Your task to perform on an android device: Open notification settings Image 0: 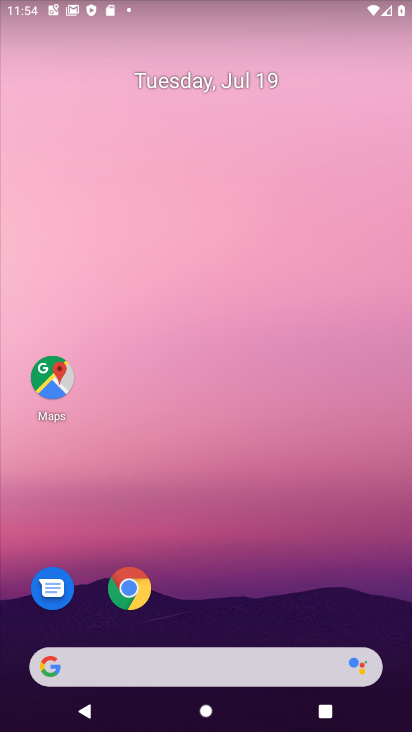
Step 0: drag from (392, 693) to (290, 97)
Your task to perform on an android device: Open notification settings Image 1: 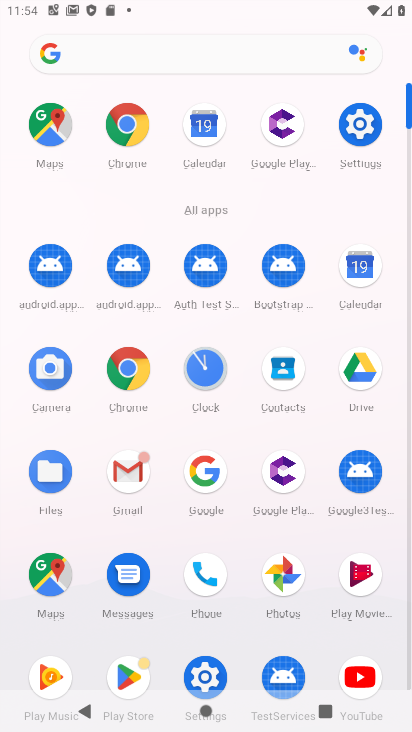
Step 1: click (365, 118)
Your task to perform on an android device: Open notification settings Image 2: 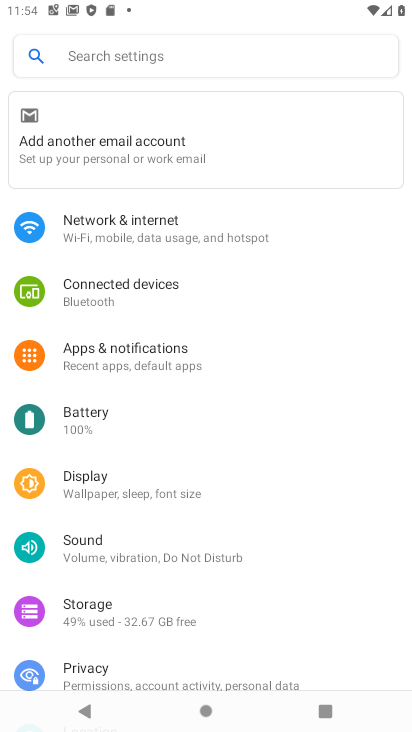
Step 2: click (153, 361)
Your task to perform on an android device: Open notification settings Image 3: 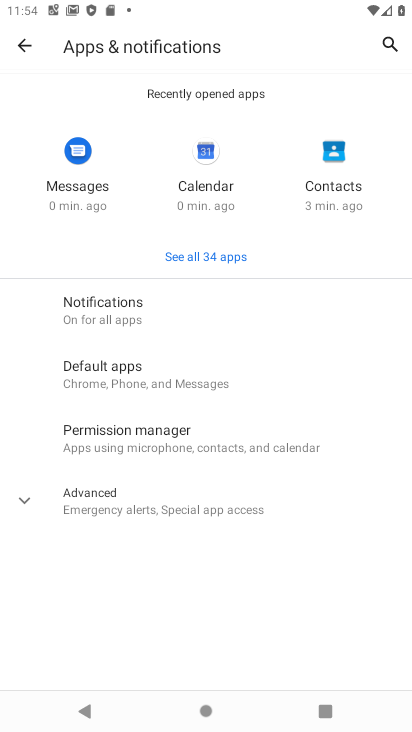
Step 3: click (92, 307)
Your task to perform on an android device: Open notification settings Image 4: 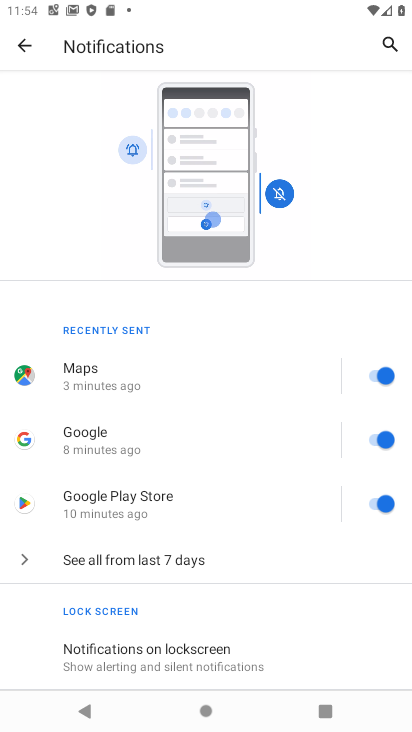
Step 4: drag from (308, 643) to (283, 279)
Your task to perform on an android device: Open notification settings Image 5: 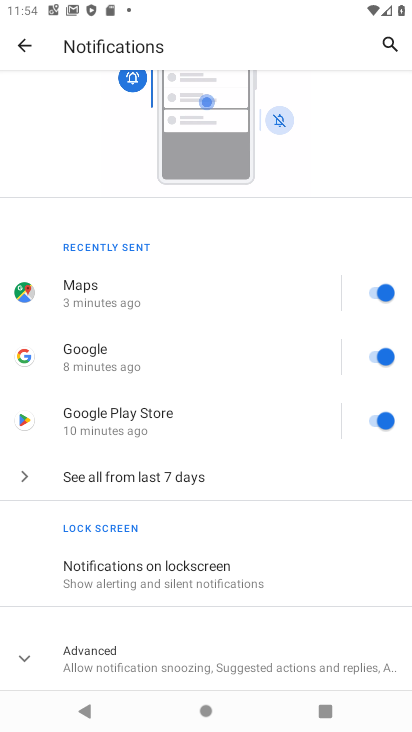
Step 5: click (46, 652)
Your task to perform on an android device: Open notification settings Image 6: 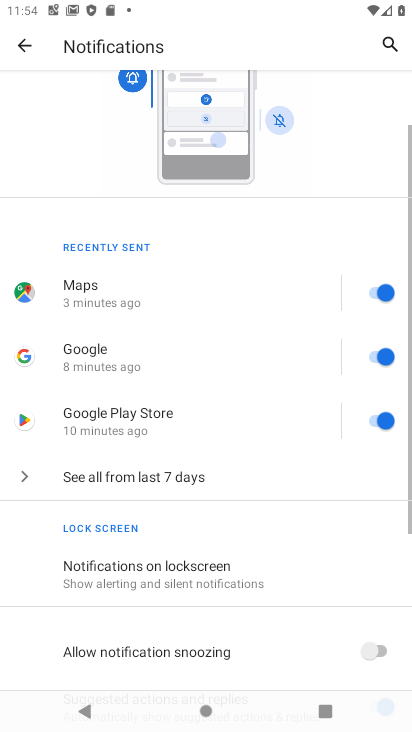
Step 6: task complete